Your task to perform on an android device: Open internet settings Image 0: 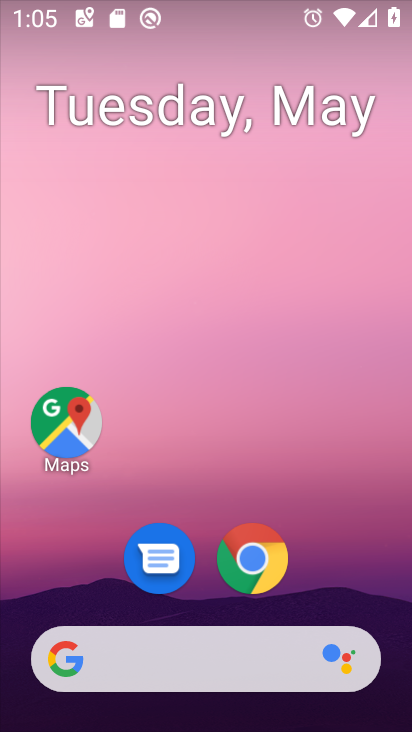
Step 0: drag from (349, 601) to (276, 104)
Your task to perform on an android device: Open internet settings Image 1: 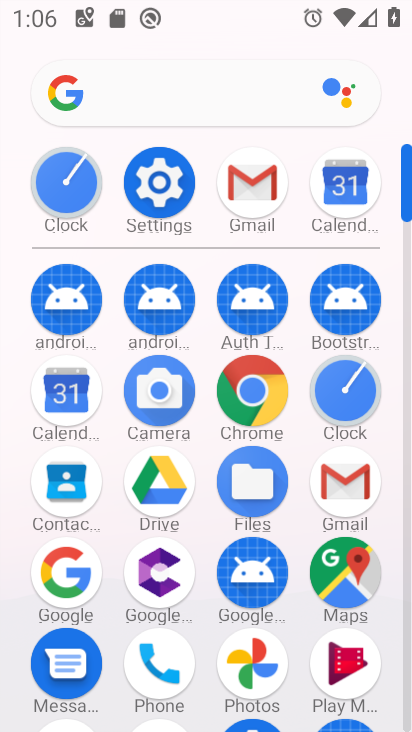
Step 1: click (156, 172)
Your task to perform on an android device: Open internet settings Image 2: 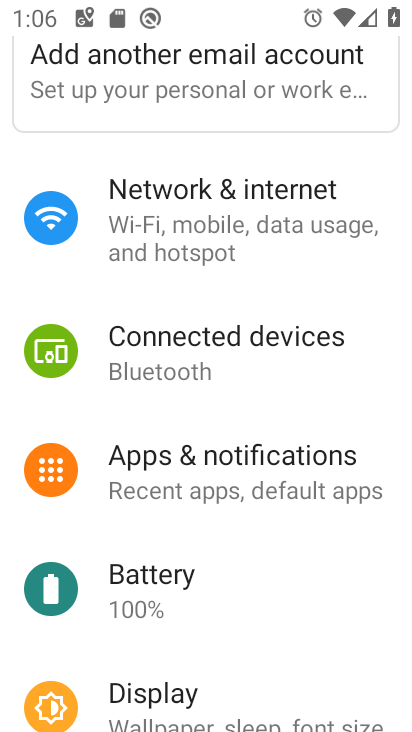
Step 2: click (167, 195)
Your task to perform on an android device: Open internet settings Image 3: 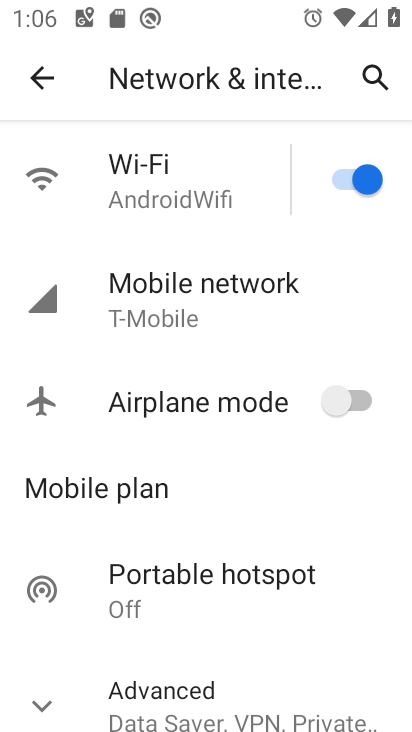
Step 3: task complete